Your task to perform on an android device: change the clock style Image 0: 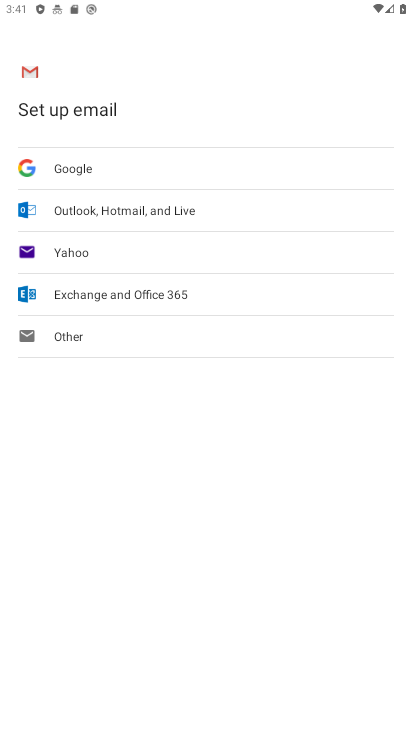
Step 0: press home button
Your task to perform on an android device: change the clock style Image 1: 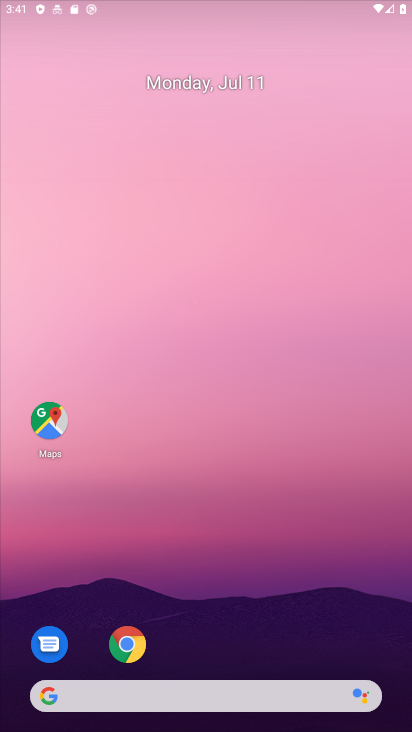
Step 1: drag from (244, 619) to (357, 65)
Your task to perform on an android device: change the clock style Image 2: 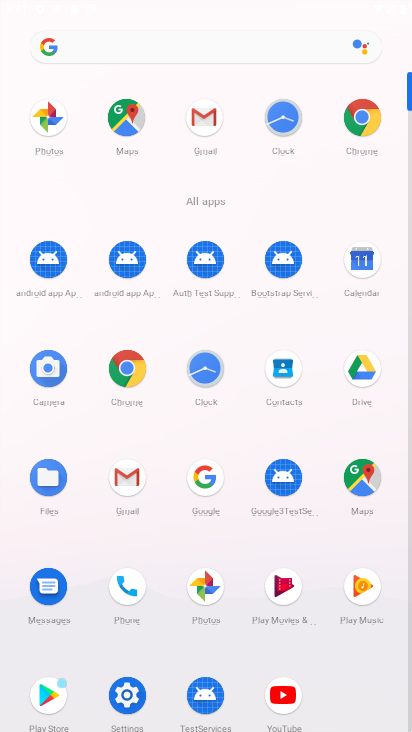
Step 2: click (206, 362)
Your task to perform on an android device: change the clock style Image 3: 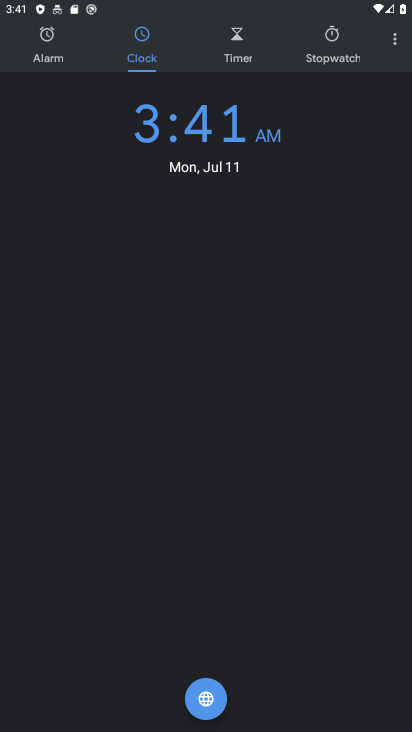
Step 3: click (388, 38)
Your task to perform on an android device: change the clock style Image 4: 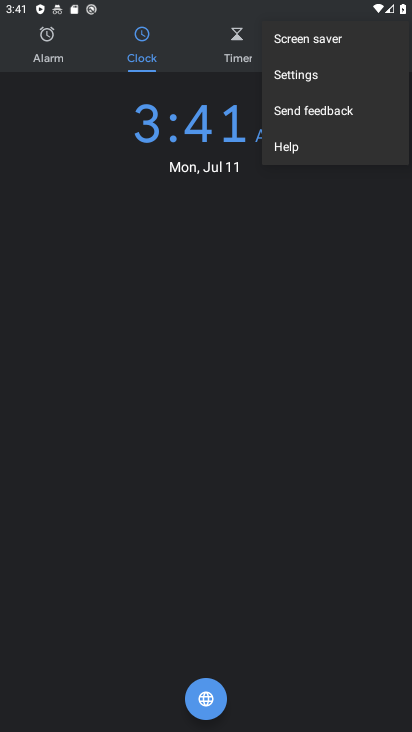
Step 4: click (293, 66)
Your task to perform on an android device: change the clock style Image 5: 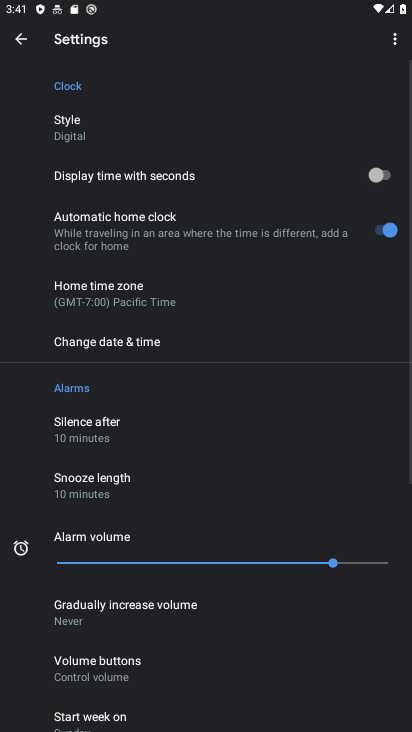
Step 5: click (127, 132)
Your task to perform on an android device: change the clock style Image 6: 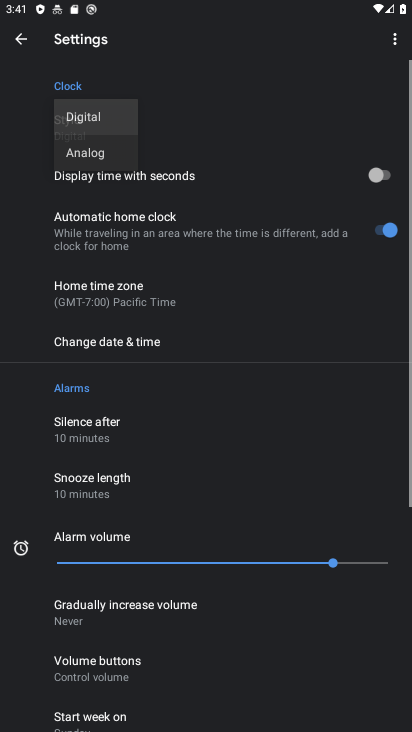
Step 6: click (96, 154)
Your task to perform on an android device: change the clock style Image 7: 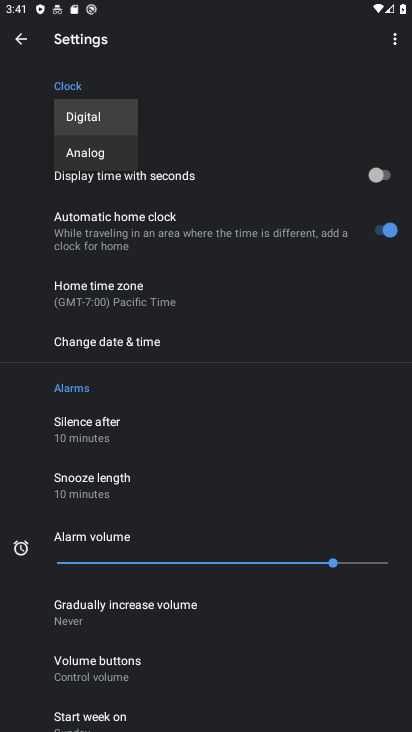
Step 7: click (91, 154)
Your task to perform on an android device: change the clock style Image 8: 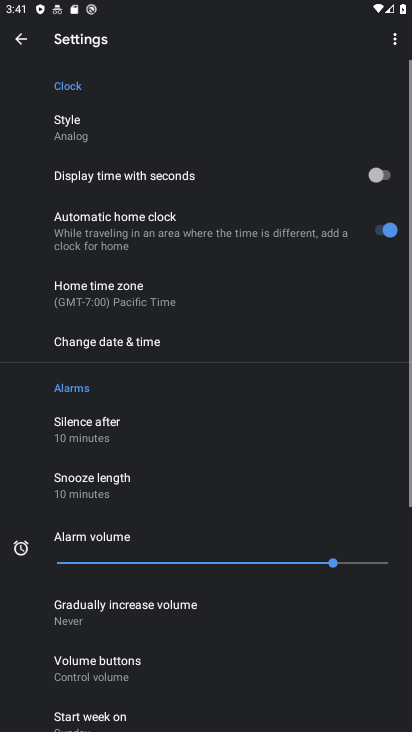
Step 8: task complete